Your task to perform on an android device: What is the recent news? Image 0: 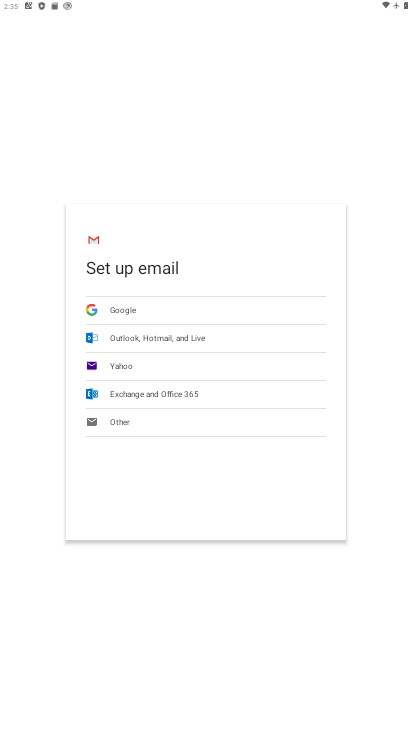
Step 0: press home button
Your task to perform on an android device: What is the recent news? Image 1: 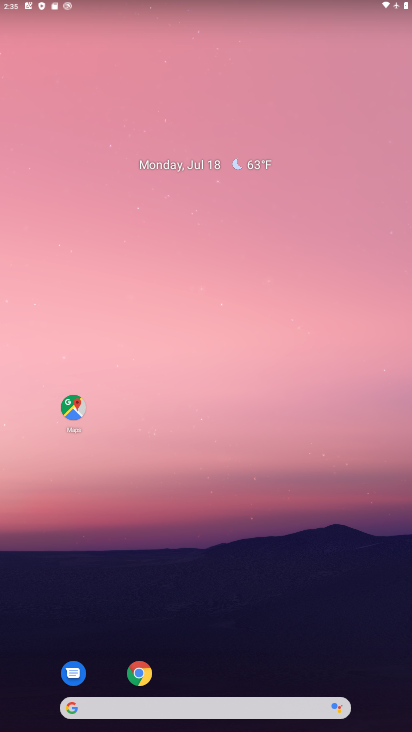
Step 1: click (135, 679)
Your task to perform on an android device: What is the recent news? Image 2: 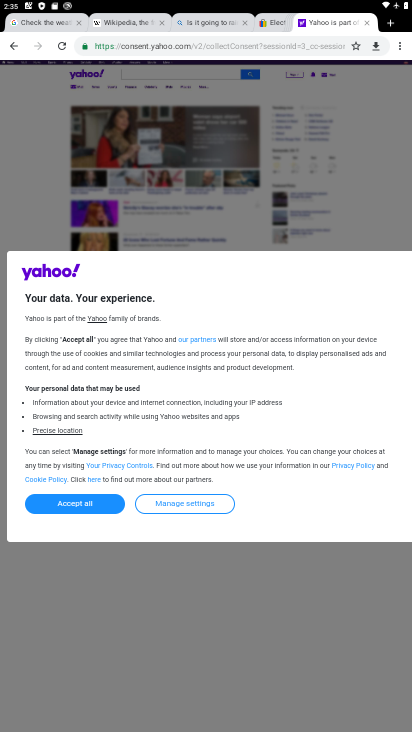
Step 2: click (407, 44)
Your task to perform on an android device: What is the recent news? Image 3: 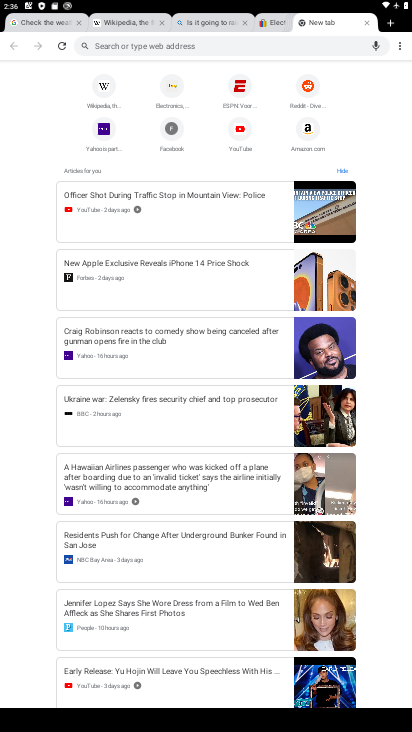
Step 3: click (196, 37)
Your task to perform on an android device: What is the recent news? Image 4: 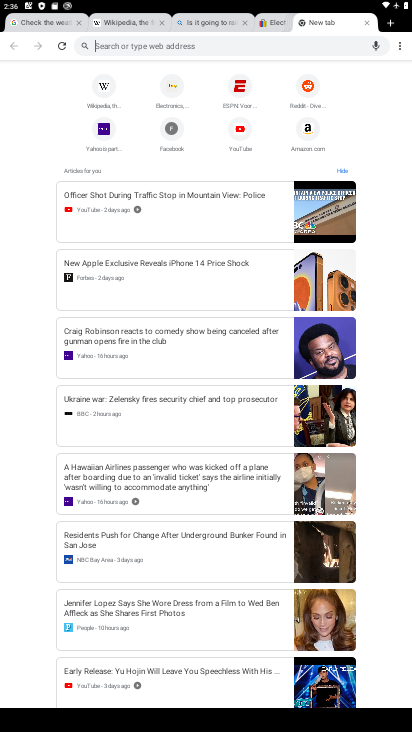
Step 4: type "What is the recent news "
Your task to perform on an android device: What is the recent news? Image 5: 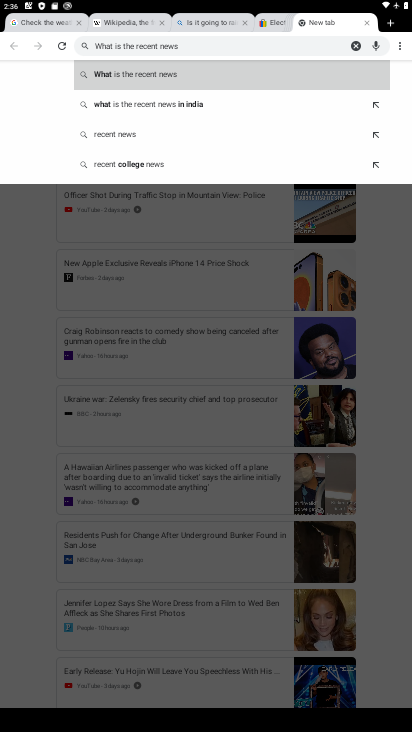
Step 5: click (113, 74)
Your task to perform on an android device: What is the recent news? Image 6: 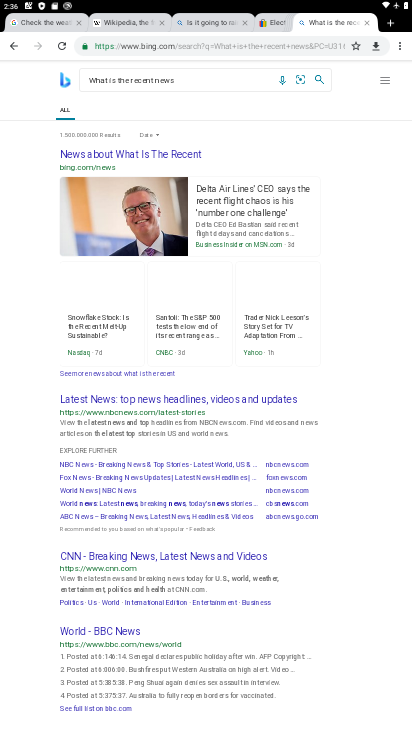
Step 6: task complete